Your task to perform on an android device: Open Chrome and go to settings Image 0: 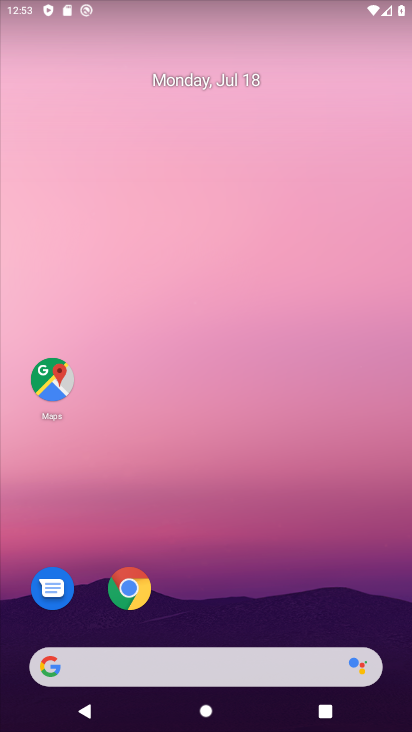
Step 0: click (133, 592)
Your task to perform on an android device: Open Chrome and go to settings Image 1: 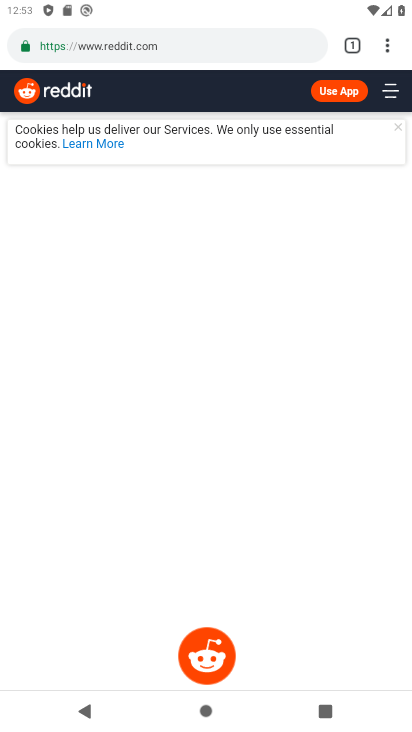
Step 1: task complete